Your task to perform on an android device: read, delete, or share a saved page in the chrome app Image 0: 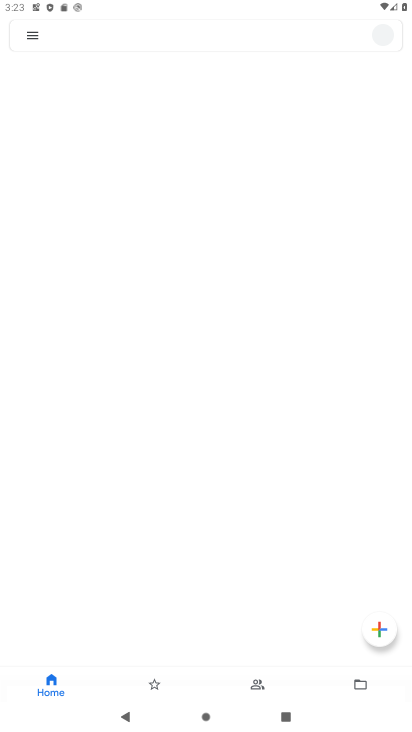
Step 0: press home button
Your task to perform on an android device: read, delete, or share a saved page in the chrome app Image 1: 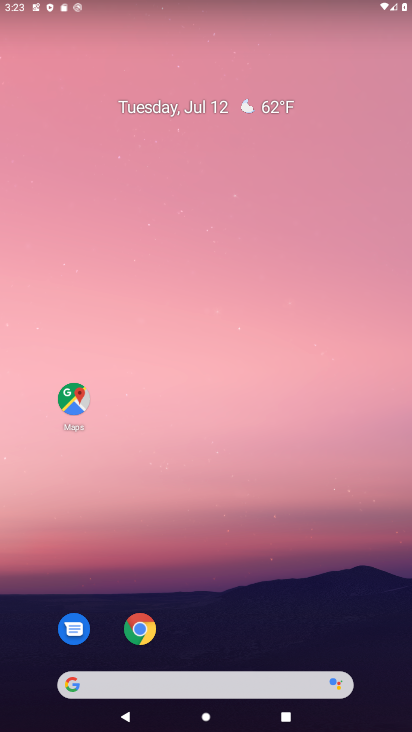
Step 1: drag from (229, 633) to (234, 100)
Your task to perform on an android device: read, delete, or share a saved page in the chrome app Image 2: 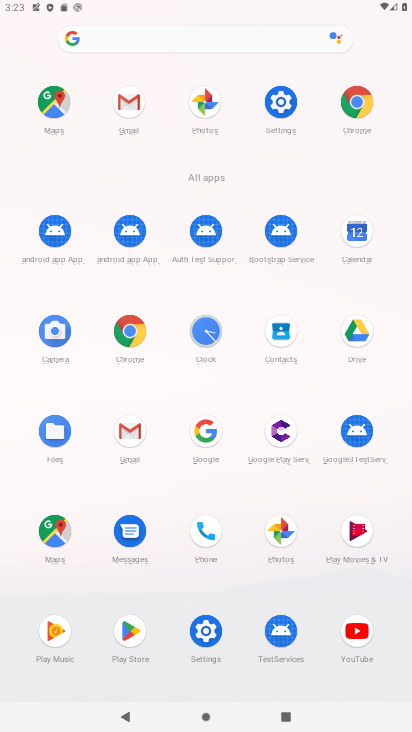
Step 2: click (358, 108)
Your task to perform on an android device: read, delete, or share a saved page in the chrome app Image 3: 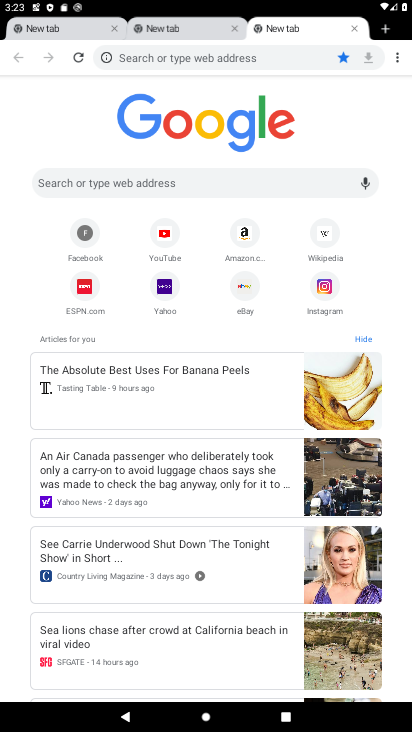
Step 3: task complete